Your task to perform on an android device: Do I have any events tomorrow? Image 0: 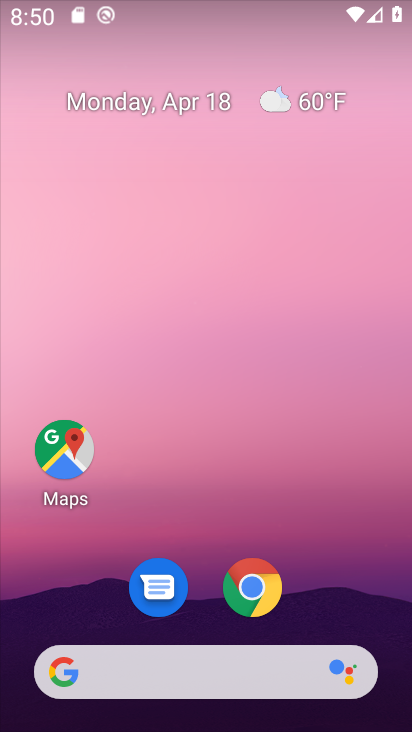
Step 0: drag from (342, 563) to (275, 161)
Your task to perform on an android device: Do I have any events tomorrow? Image 1: 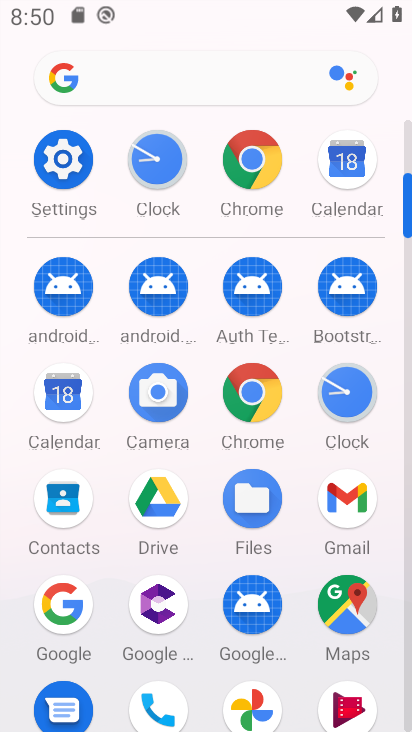
Step 1: click (52, 411)
Your task to perform on an android device: Do I have any events tomorrow? Image 2: 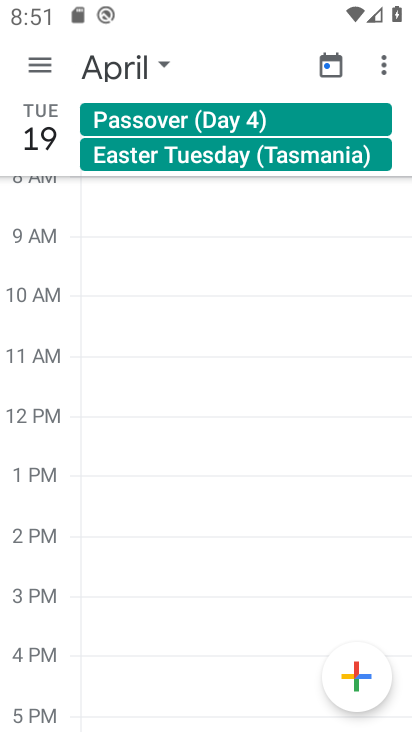
Step 2: click (43, 129)
Your task to perform on an android device: Do I have any events tomorrow? Image 3: 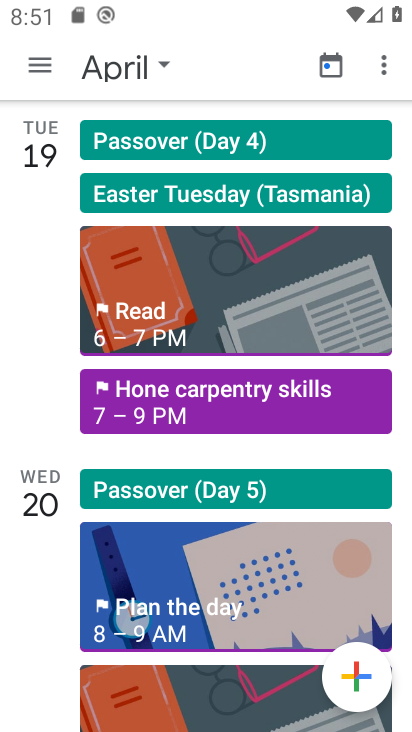
Step 3: click (27, 512)
Your task to perform on an android device: Do I have any events tomorrow? Image 4: 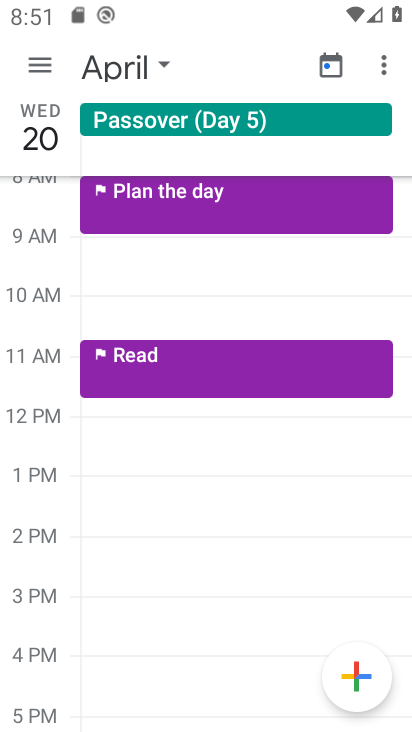
Step 4: task complete